Your task to perform on an android device: set the timer Image 0: 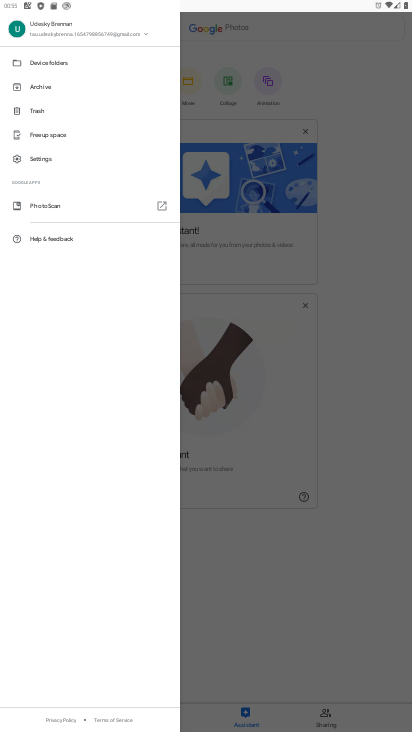
Step 0: drag from (260, 671) to (394, 88)
Your task to perform on an android device: set the timer Image 1: 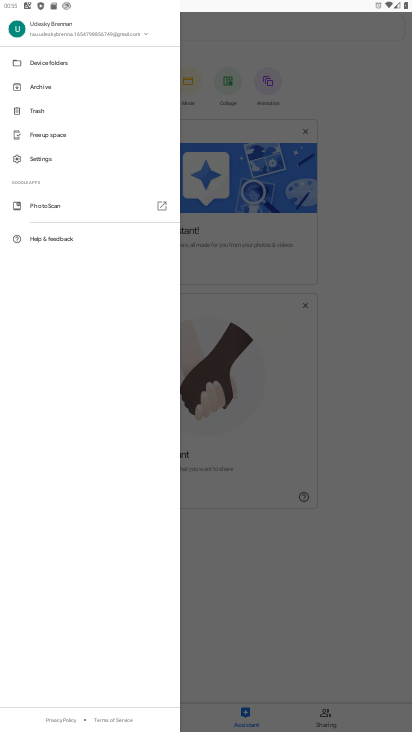
Step 1: press home button
Your task to perform on an android device: set the timer Image 2: 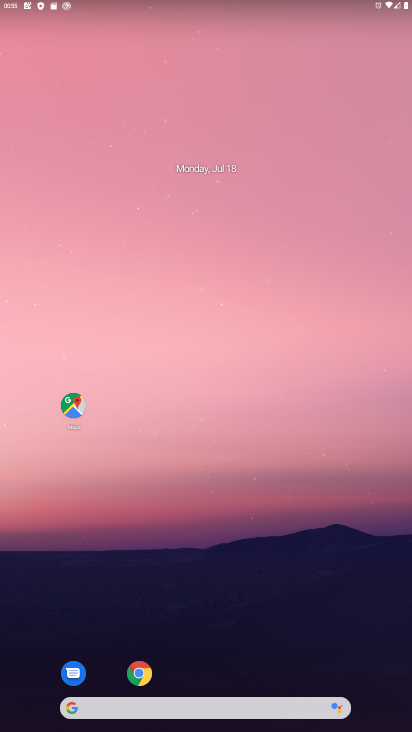
Step 2: drag from (270, 664) to (327, 114)
Your task to perform on an android device: set the timer Image 3: 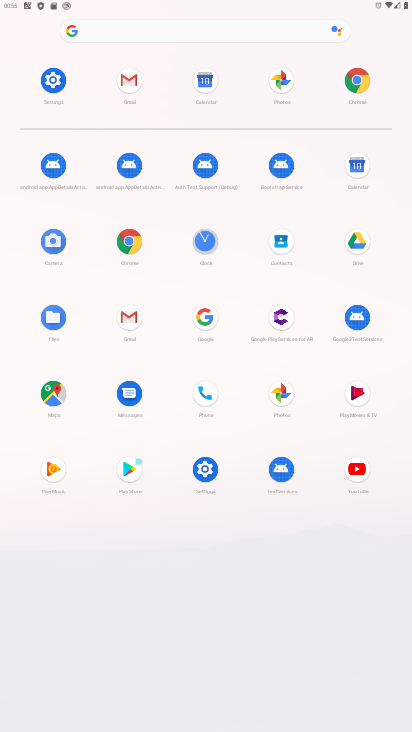
Step 3: click (201, 254)
Your task to perform on an android device: set the timer Image 4: 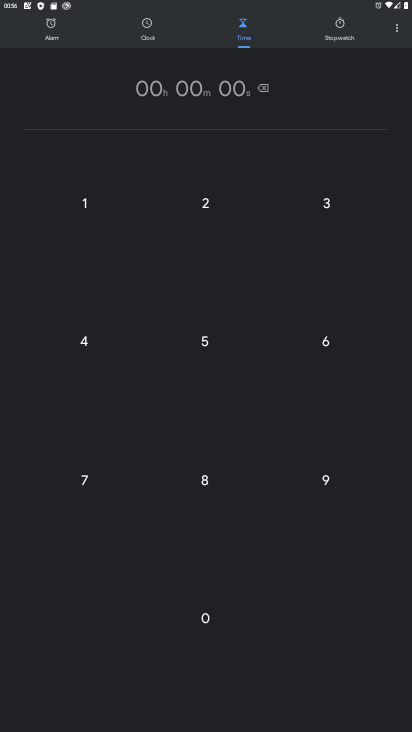
Step 4: task complete